Your task to perform on an android device: turn pop-ups on in chrome Image 0: 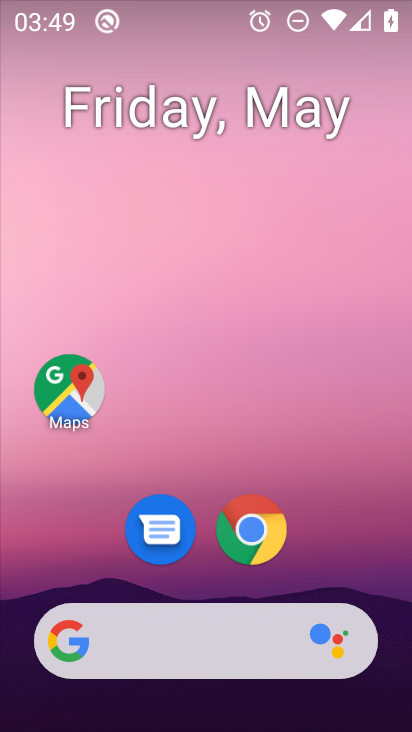
Step 0: click (246, 521)
Your task to perform on an android device: turn pop-ups on in chrome Image 1: 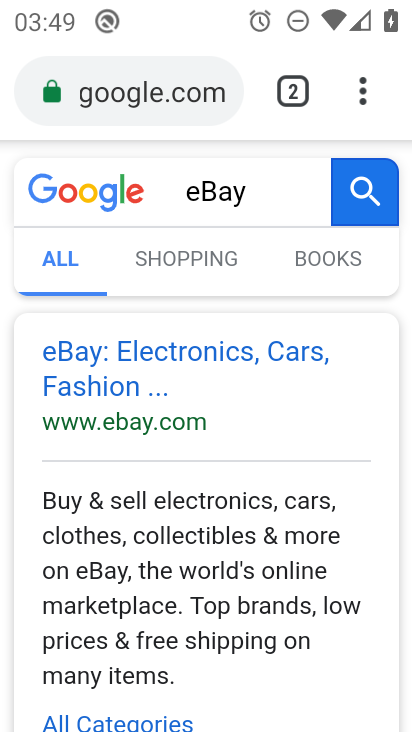
Step 1: click (363, 87)
Your task to perform on an android device: turn pop-ups on in chrome Image 2: 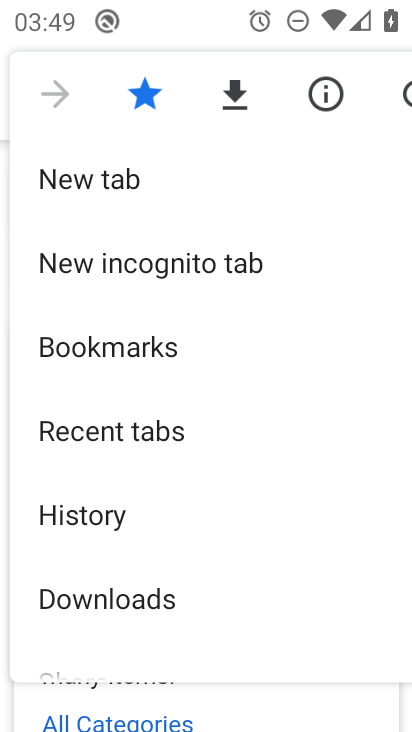
Step 2: drag from (247, 545) to (266, 358)
Your task to perform on an android device: turn pop-ups on in chrome Image 3: 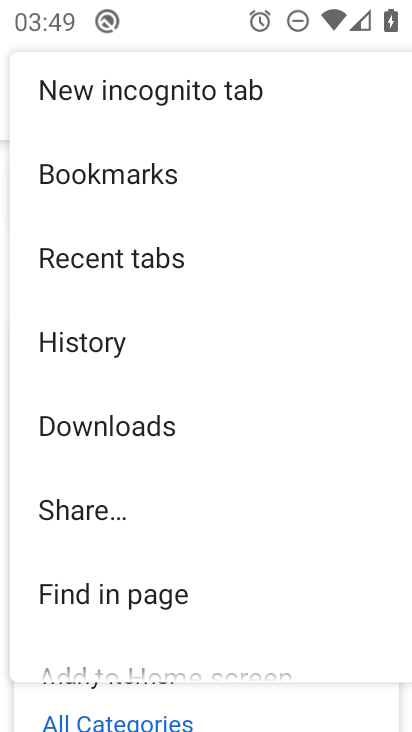
Step 3: drag from (270, 623) to (273, 379)
Your task to perform on an android device: turn pop-ups on in chrome Image 4: 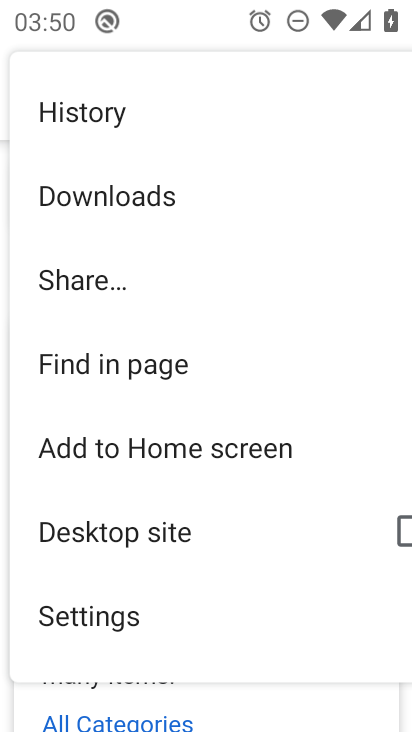
Step 4: drag from (179, 641) to (184, 415)
Your task to perform on an android device: turn pop-ups on in chrome Image 5: 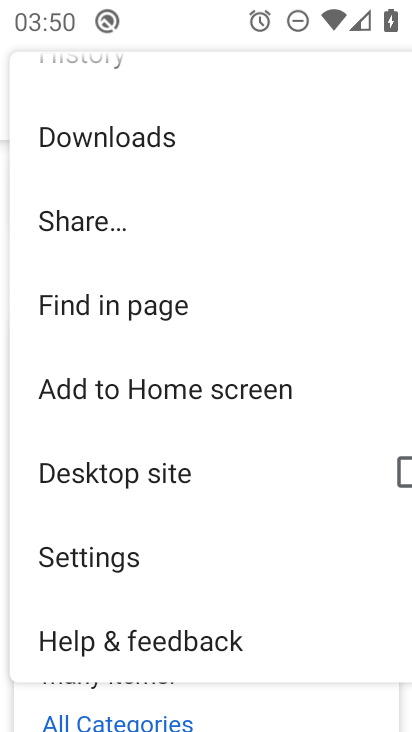
Step 5: drag from (261, 523) to (266, 325)
Your task to perform on an android device: turn pop-ups on in chrome Image 6: 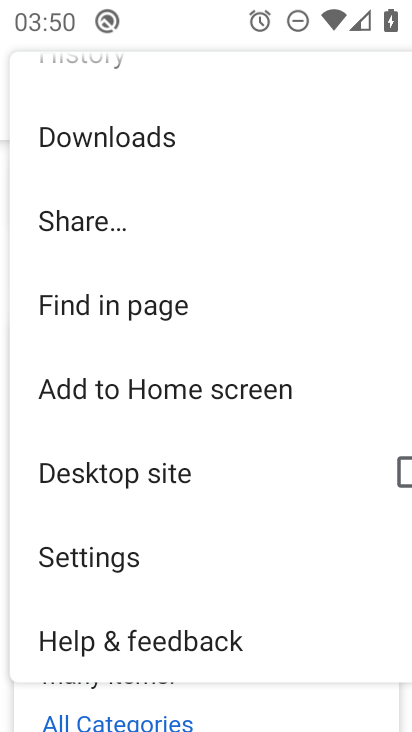
Step 6: drag from (285, 615) to (256, 286)
Your task to perform on an android device: turn pop-ups on in chrome Image 7: 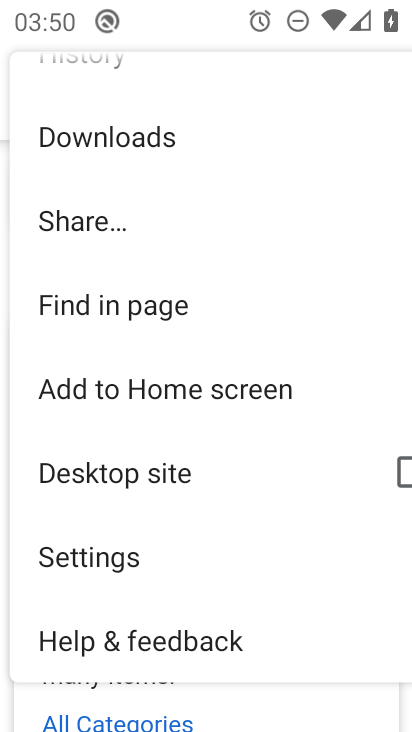
Step 7: click (80, 555)
Your task to perform on an android device: turn pop-ups on in chrome Image 8: 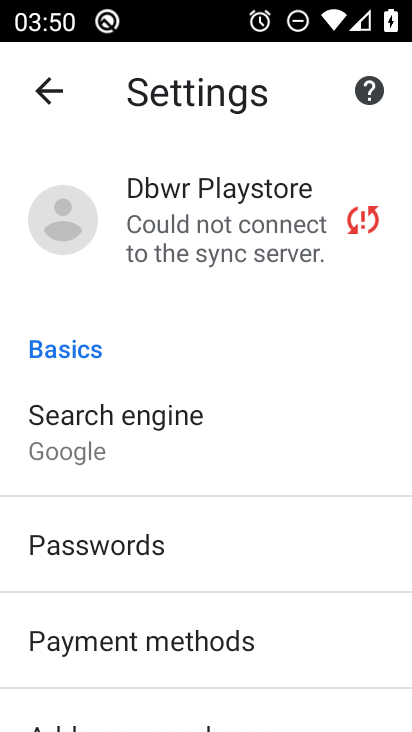
Step 8: drag from (304, 709) to (200, 202)
Your task to perform on an android device: turn pop-ups on in chrome Image 9: 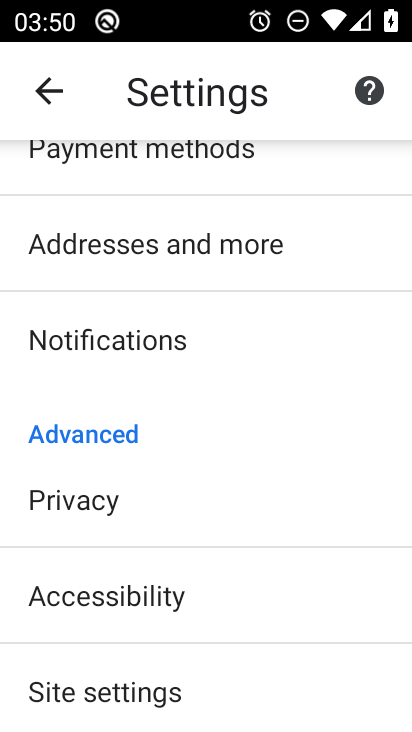
Step 9: click (130, 689)
Your task to perform on an android device: turn pop-ups on in chrome Image 10: 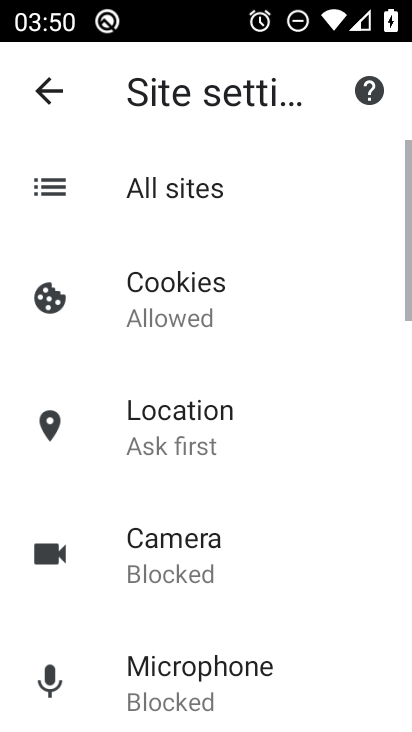
Step 10: drag from (335, 712) to (233, 137)
Your task to perform on an android device: turn pop-ups on in chrome Image 11: 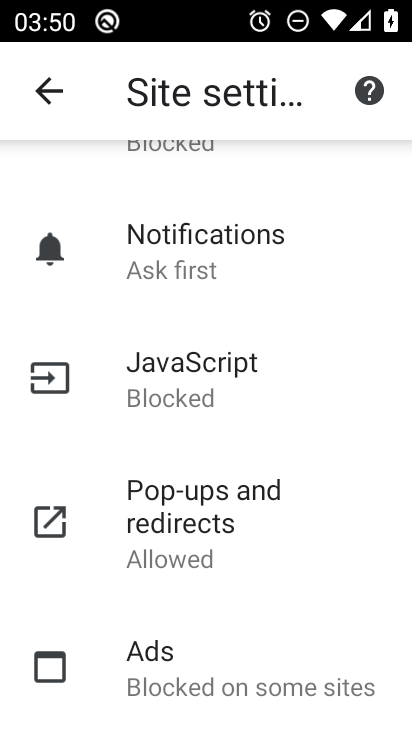
Step 11: click (203, 517)
Your task to perform on an android device: turn pop-ups on in chrome Image 12: 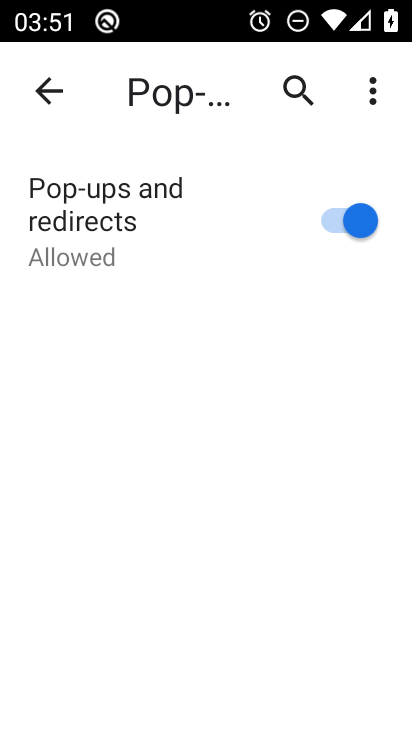
Step 12: task complete